Your task to perform on an android device: Open calendar and show me the fourth week of next month Image 0: 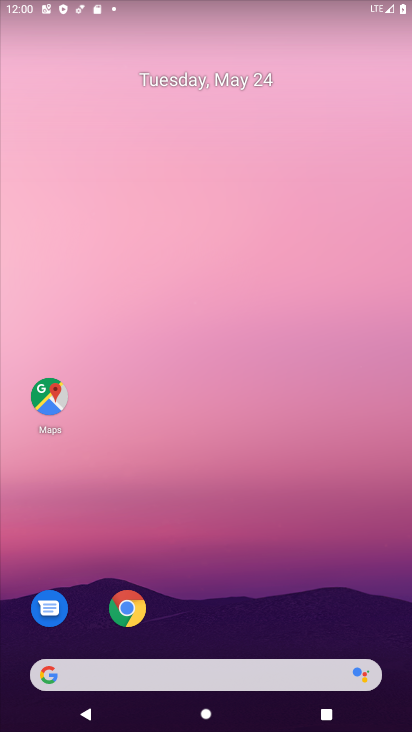
Step 0: press home button
Your task to perform on an android device: Open calendar and show me the fourth week of next month Image 1: 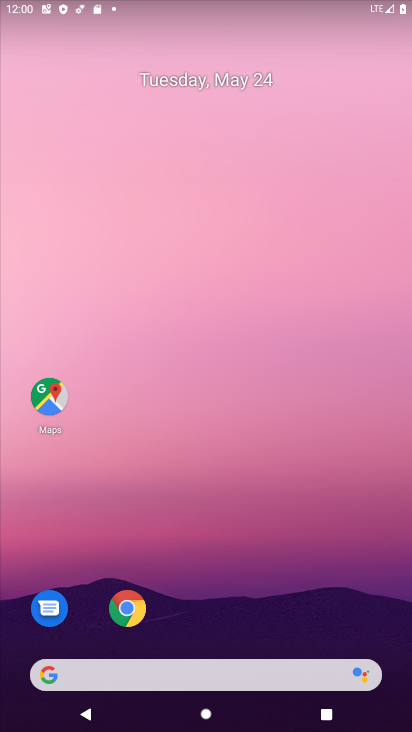
Step 1: drag from (213, 644) to (226, 34)
Your task to perform on an android device: Open calendar and show me the fourth week of next month Image 2: 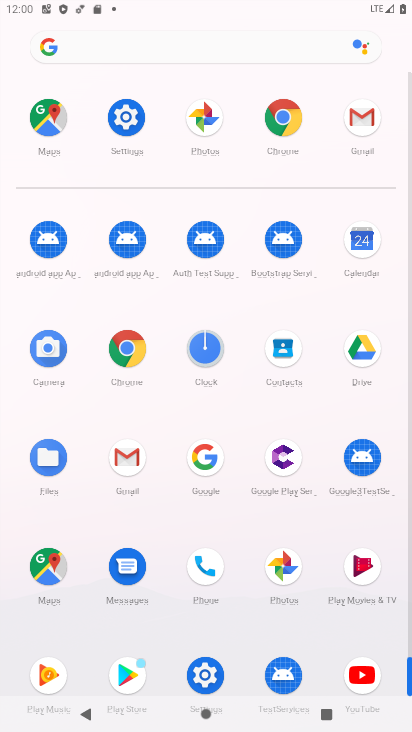
Step 2: click (358, 236)
Your task to perform on an android device: Open calendar and show me the fourth week of next month Image 3: 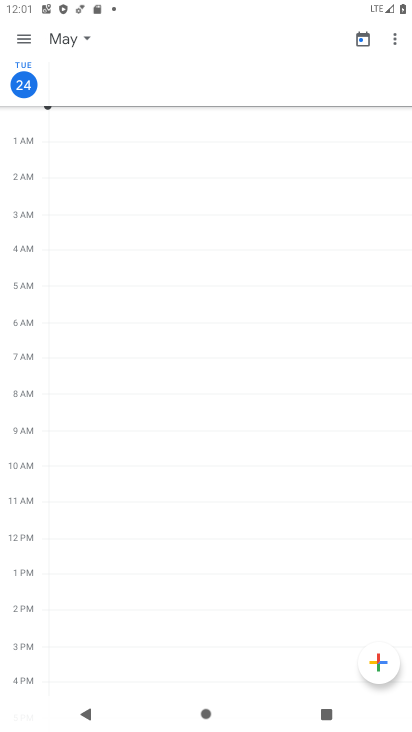
Step 3: click (20, 39)
Your task to perform on an android device: Open calendar and show me the fourth week of next month Image 4: 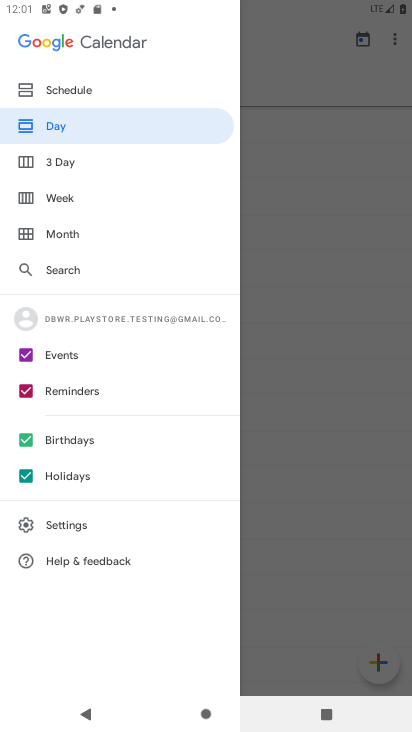
Step 4: click (73, 195)
Your task to perform on an android device: Open calendar and show me the fourth week of next month Image 5: 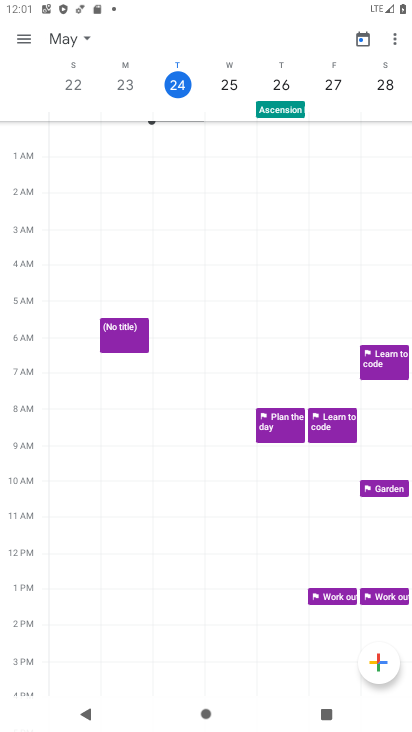
Step 5: click (85, 35)
Your task to perform on an android device: Open calendar and show me the fourth week of next month Image 6: 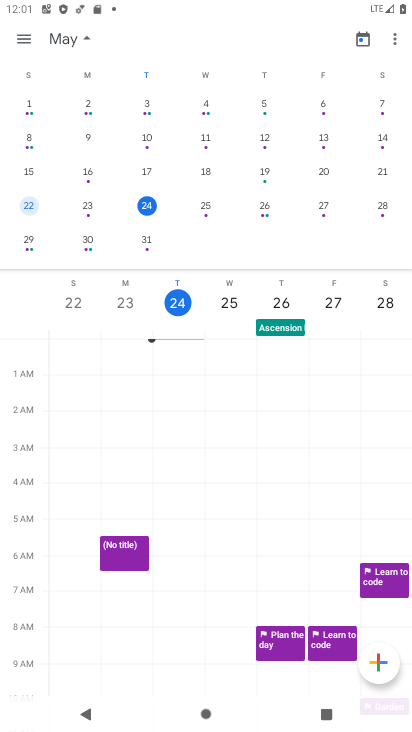
Step 6: drag from (353, 159) to (9, 170)
Your task to perform on an android device: Open calendar and show me the fourth week of next month Image 7: 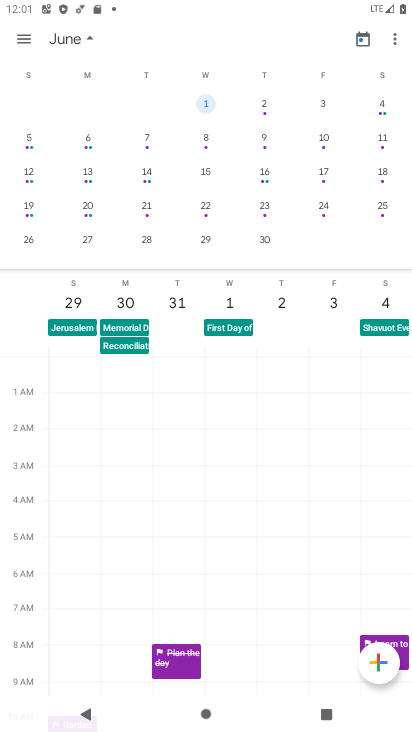
Step 7: click (27, 205)
Your task to perform on an android device: Open calendar and show me the fourth week of next month Image 8: 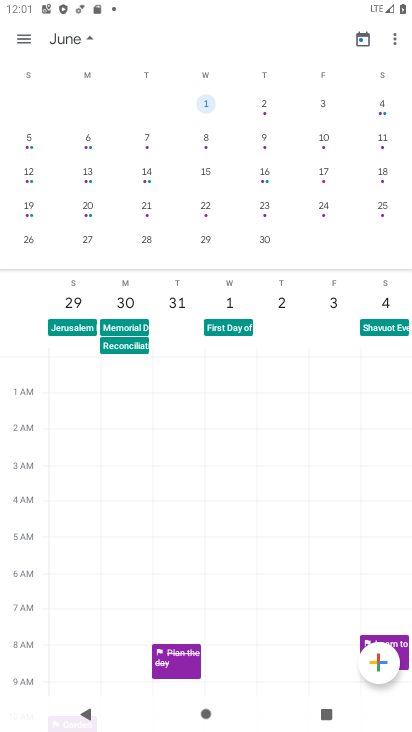
Step 8: click (27, 201)
Your task to perform on an android device: Open calendar and show me the fourth week of next month Image 9: 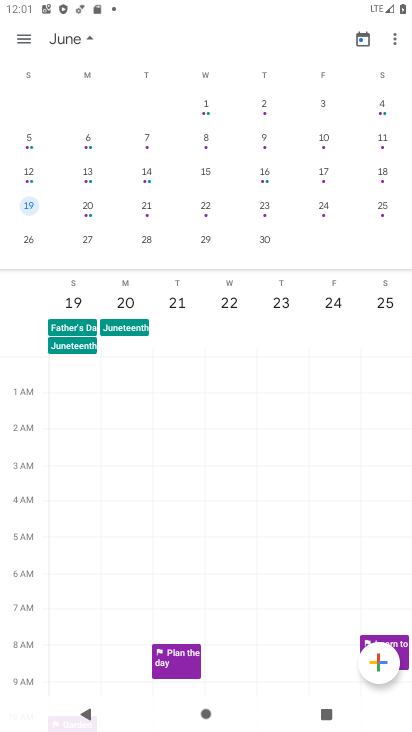
Step 9: click (75, 294)
Your task to perform on an android device: Open calendar and show me the fourth week of next month Image 10: 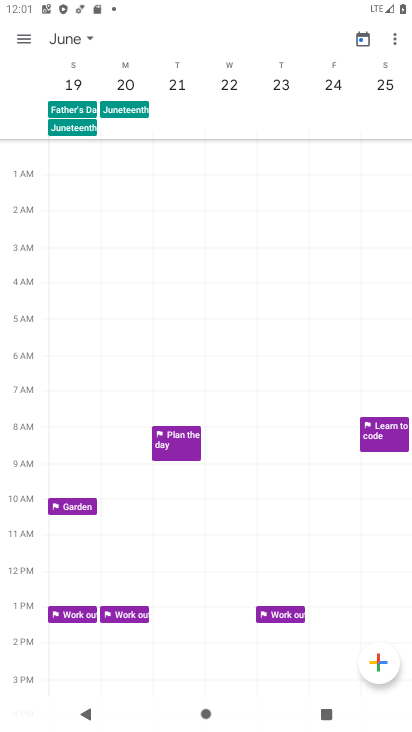
Step 10: click (78, 81)
Your task to perform on an android device: Open calendar and show me the fourth week of next month Image 11: 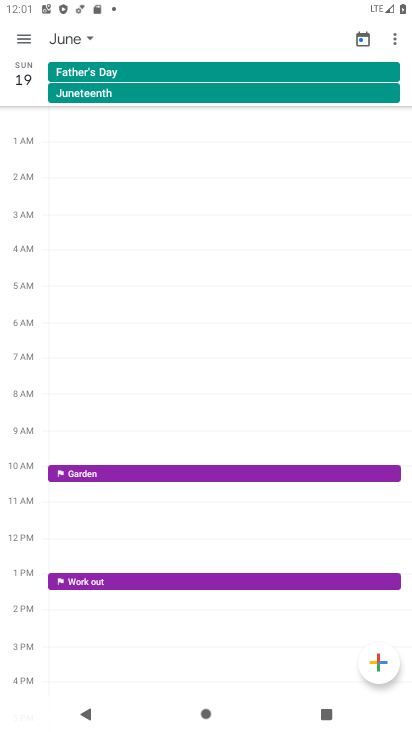
Step 11: click (36, 91)
Your task to perform on an android device: Open calendar and show me the fourth week of next month Image 12: 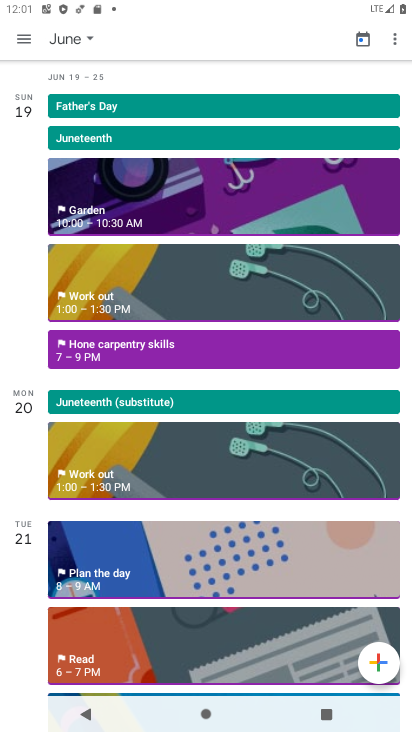
Step 12: task complete